Your task to perform on an android device: refresh tabs in the chrome app Image 0: 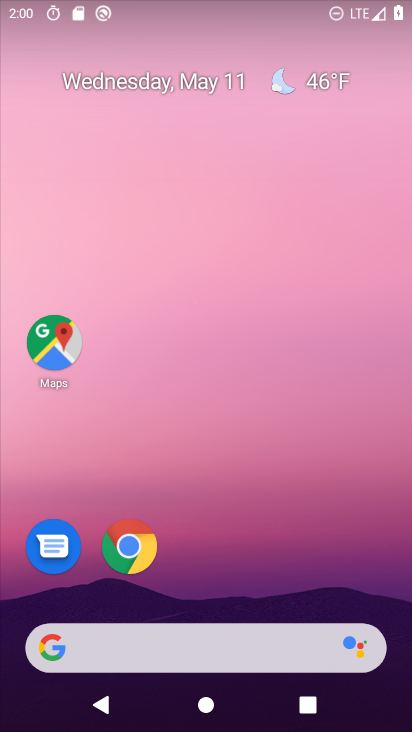
Step 0: drag from (253, 664) to (204, 166)
Your task to perform on an android device: refresh tabs in the chrome app Image 1: 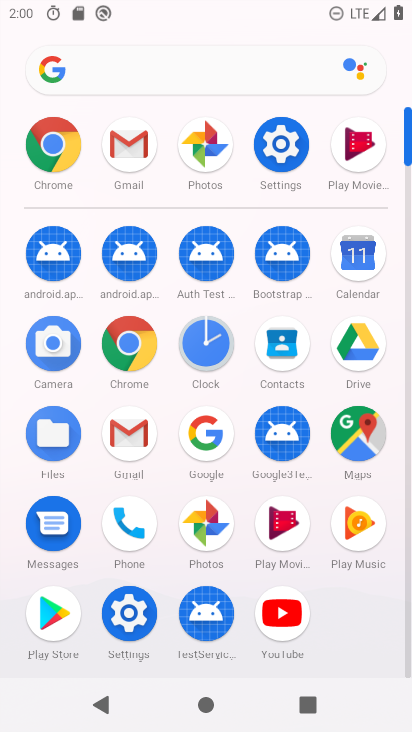
Step 1: click (67, 144)
Your task to perform on an android device: refresh tabs in the chrome app Image 2: 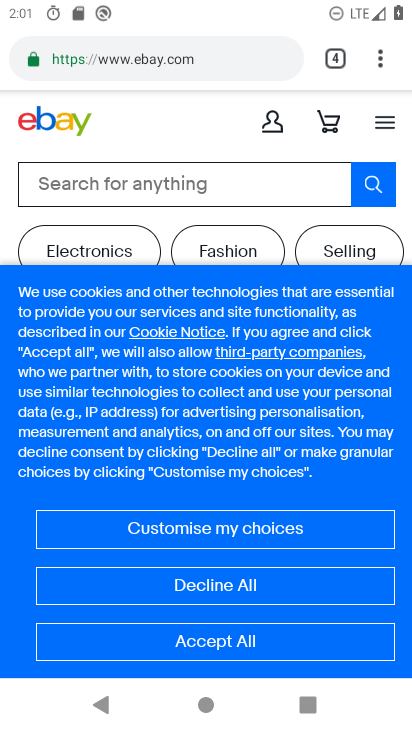
Step 2: click (385, 54)
Your task to perform on an android device: refresh tabs in the chrome app Image 3: 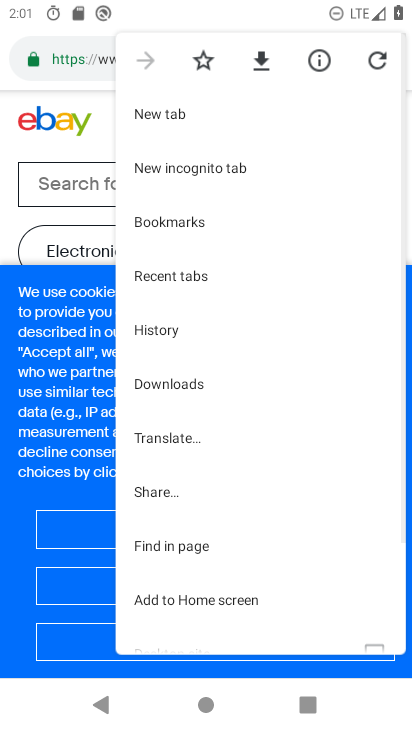
Step 3: click (372, 64)
Your task to perform on an android device: refresh tabs in the chrome app Image 4: 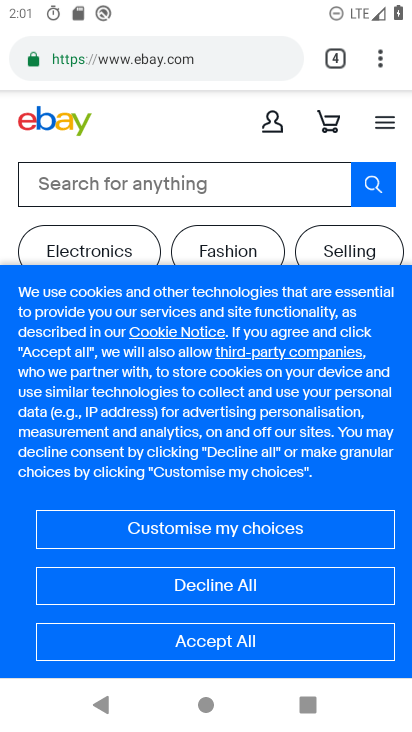
Step 4: task complete